Your task to perform on an android device: visit the assistant section in the google photos Image 0: 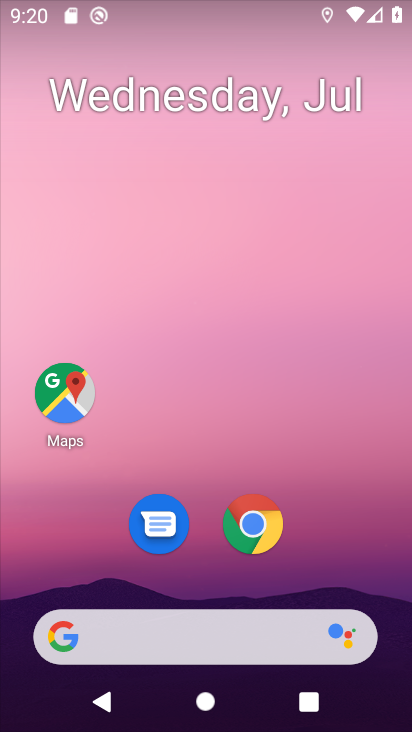
Step 0: drag from (339, 531) to (354, 24)
Your task to perform on an android device: visit the assistant section in the google photos Image 1: 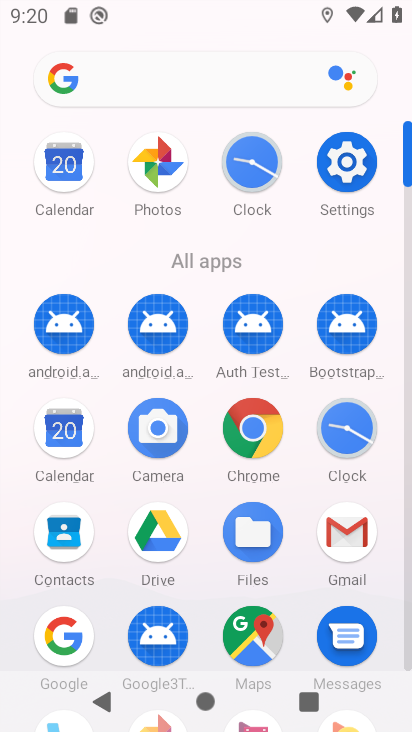
Step 1: click (172, 160)
Your task to perform on an android device: visit the assistant section in the google photos Image 2: 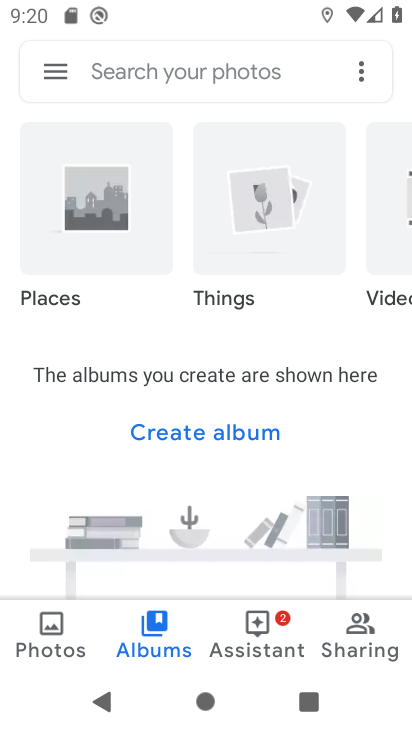
Step 2: click (266, 639)
Your task to perform on an android device: visit the assistant section in the google photos Image 3: 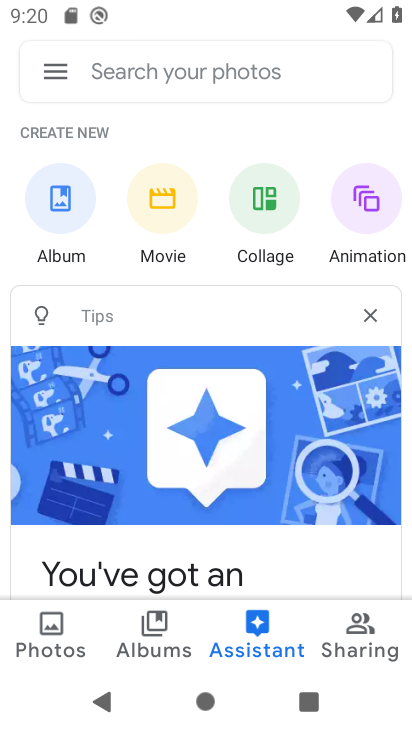
Step 3: task complete